Your task to perform on an android device: toggle notifications settings in the gmail app Image 0: 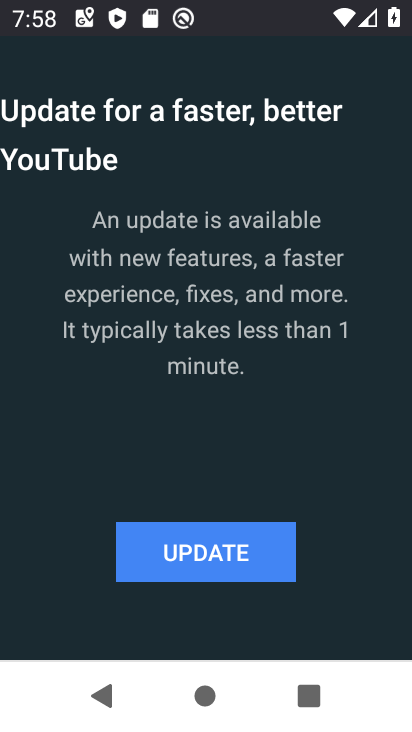
Step 0: press home button
Your task to perform on an android device: toggle notifications settings in the gmail app Image 1: 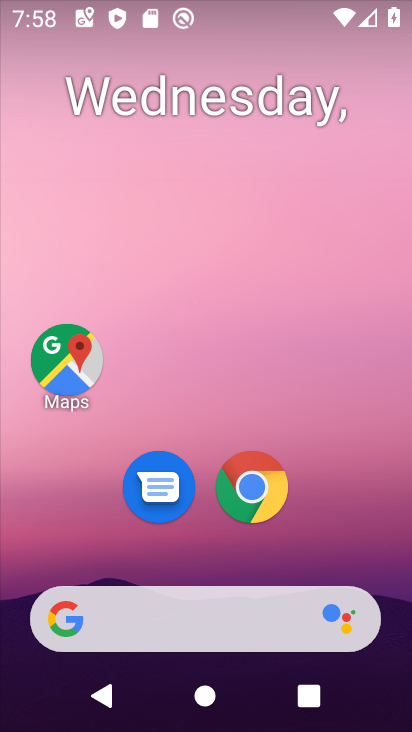
Step 1: drag from (375, 543) to (365, 262)
Your task to perform on an android device: toggle notifications settings in the gmail app Image 2: 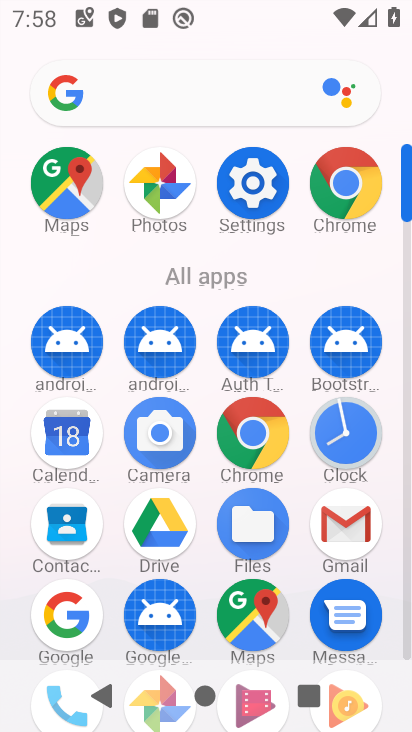
Step 2: click (344, 540)
Your task to perform on an android device: toggle notifications settings in the gmail app Image 3: 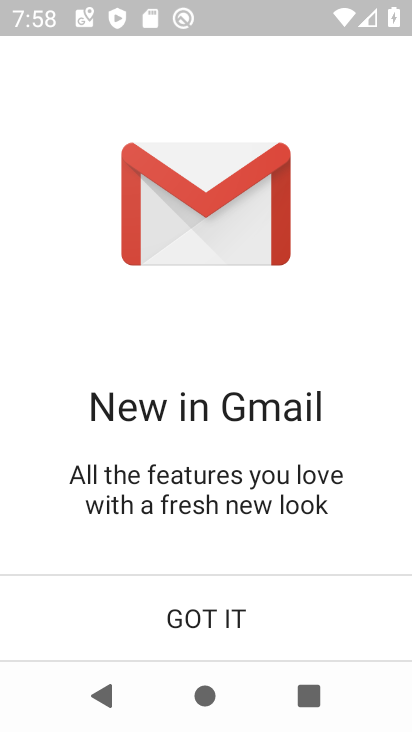
Step 3: click (273, 613)
Your task to perform on an android device: toggle notifications settings in the gmail app Image 4: 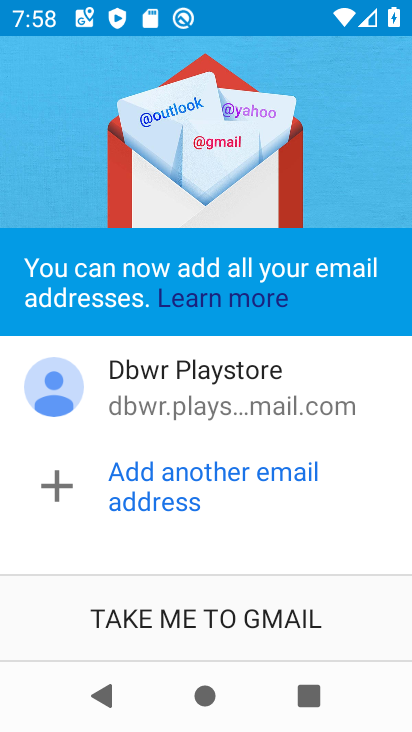
Step 4: click (273, 613)
Your task to perform on an android device: toggle notifications settings in the gmail app Image 5: 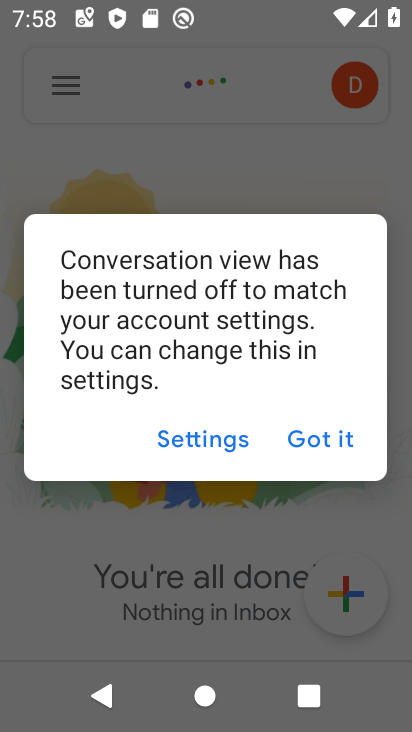
Step 5: click (332, 439)
Your task to perform on an android device: toggle notifications settings in the gmail app Image 6: 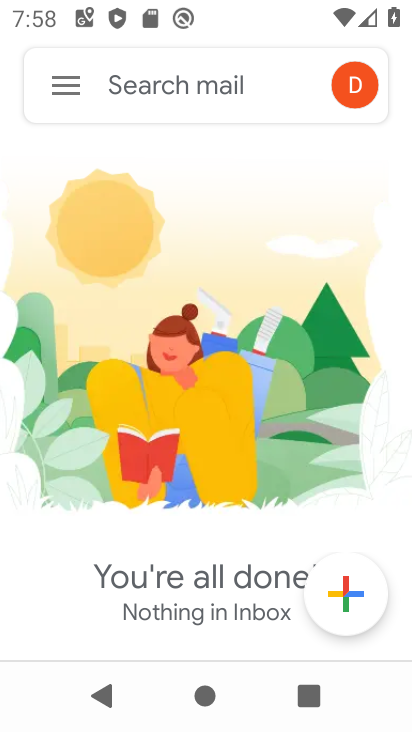
Step 6: click (61, 89)
Your task to perform on an android device: toggle notifications settings in the gmail app Image 7: 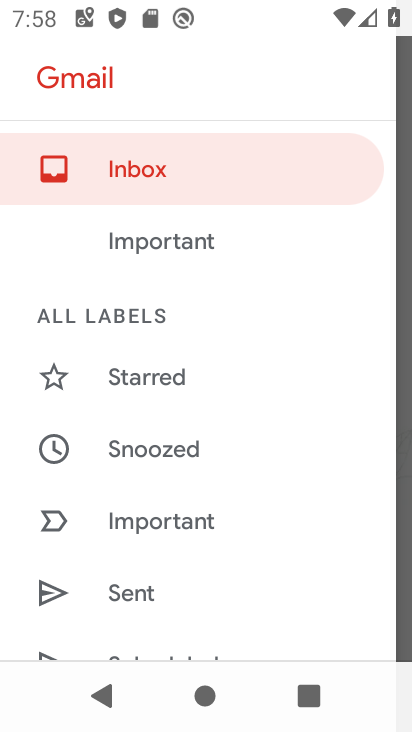
Step 7: drag from (252, 551) to (273, 462)
Your task to perform on an android device: toggle notifications settings in the gmail app Image 8: 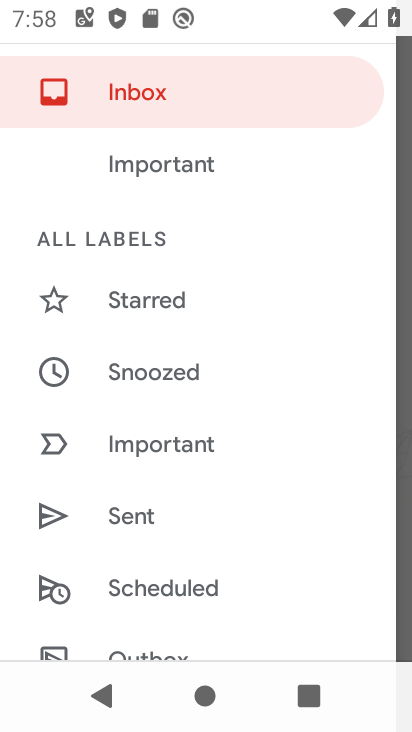
Step 8: drag from (275, 596) to (283, 490)
Your task to perform on an android device: toggle notifications settings in the gmail app Image 9: 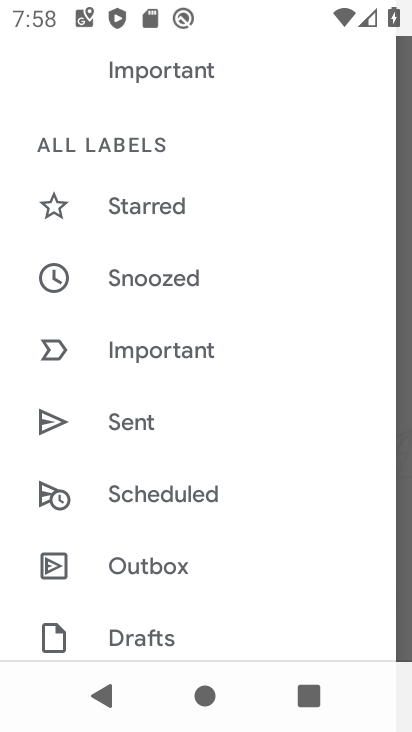
Step 9: drag from (278, 601) to (281, 480)
Your task to perform on an android device: toggle notifications settings in the gmail app Image 10: 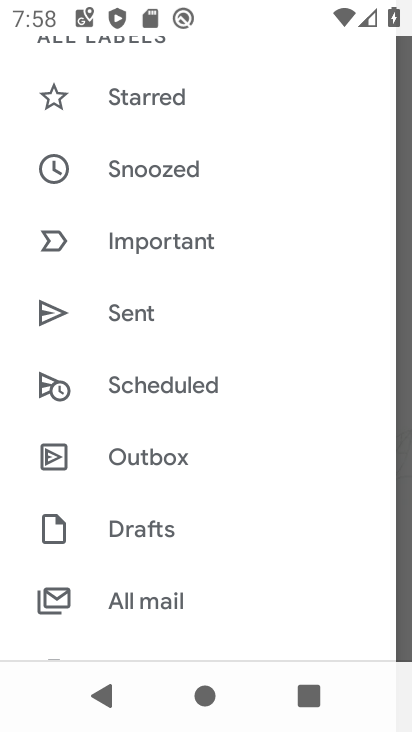
Step 10: drag from (261, 599) to (261, 516)
Your task to perform on an android device: toggle notifications settings in the gmail app Image 11: 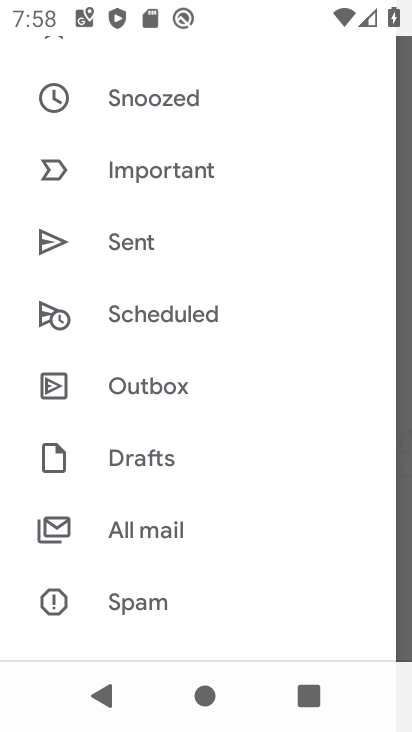
Step 11: drag from (266, 616) to (272, 518)
Your task to perform on an android device: toggle notifications settings in the gmail app Image 12: 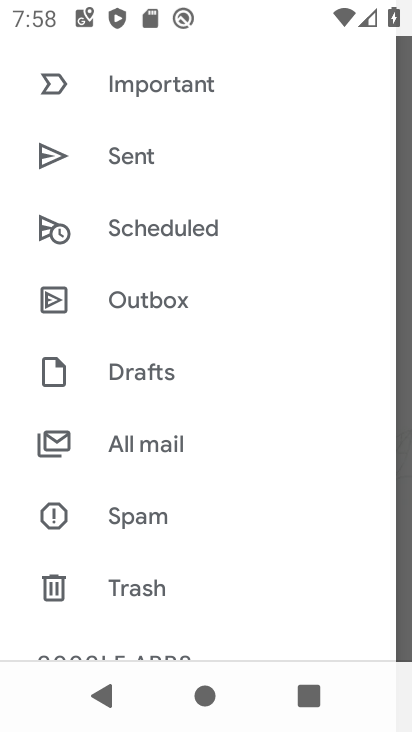
Step 12: drag from (254, 580) to (259, 467)
Your task to perform on an android device: toggle notifications settings in the gmail app Image 13: 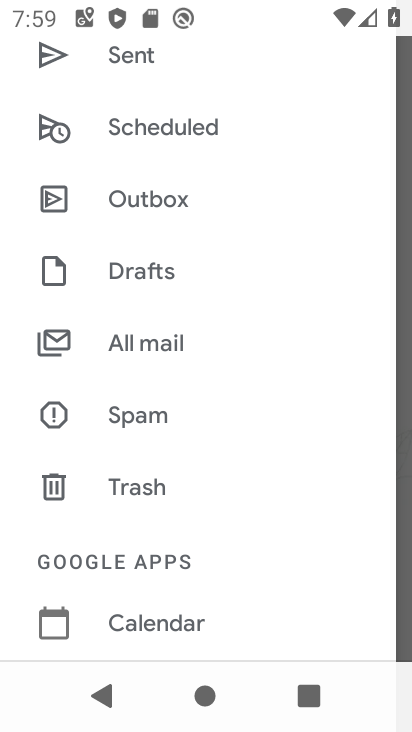
Step 13: drag from (255, 604) to (263, 479)
Your task to perform on an android device: toggle notifications settings in the gmail app Image 14: 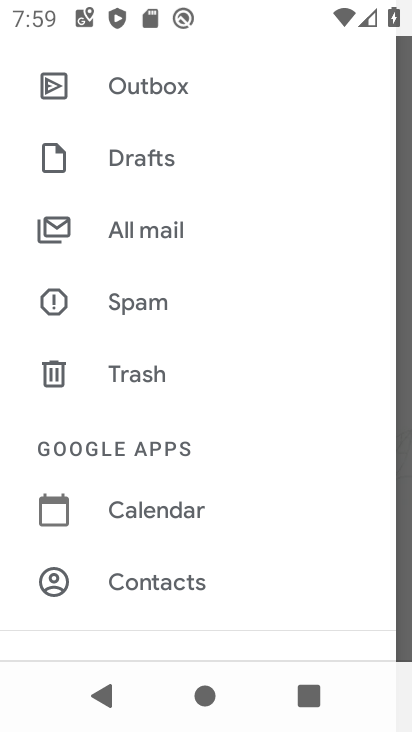
Step 14: drag from (262, 616) to (278, 475)
Your task to perform on an android device: toggle notifications settings in the gmail app Image 15: 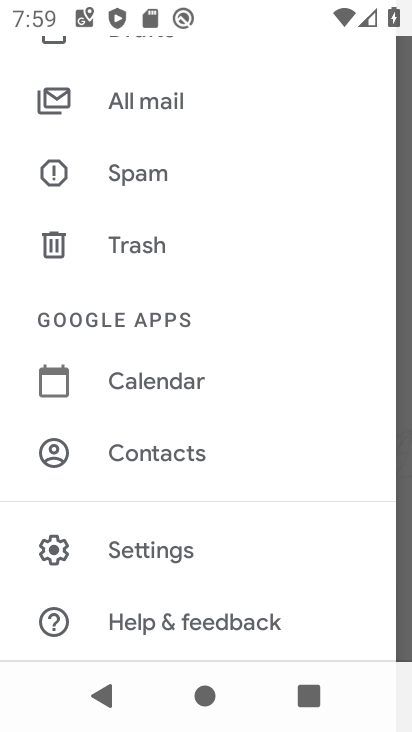
Step 15: click (194, 567)
Your task to perform on an android device: toggle notifications settings in the gmail app Image 16: 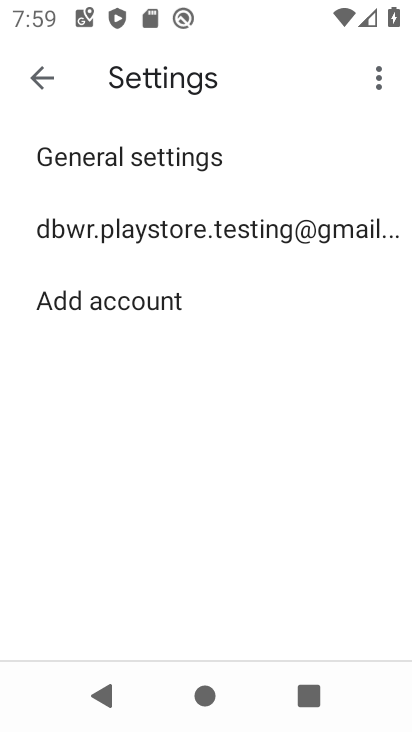
Step 16: click (270, 244)
Your task to perform on an android device: toggle notifications settings in the gmail app Image 17: 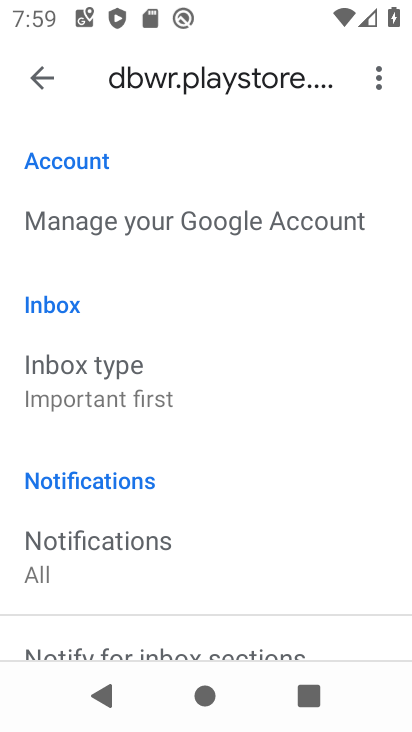
Step 17: drag from (289, 546) to (286, 437)
Your task to perform on an android device: toggle notifications settings in the gmail app Image 18: 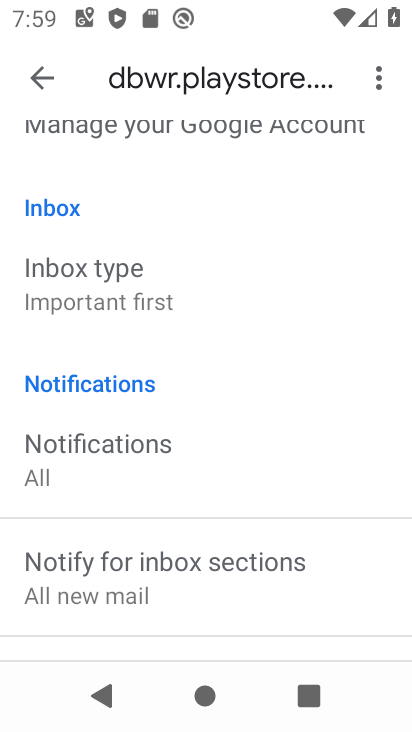
Step 18: drag from (268, 593) to (270, 450)
Your task to perform on an android device: toggle notifications settings in the gmail app Image 19: 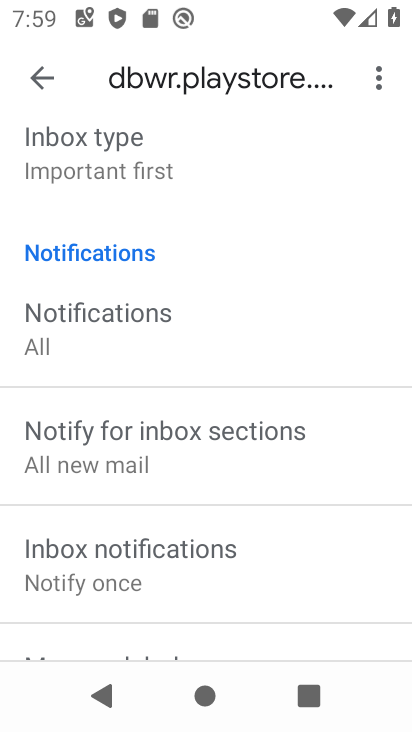
Step 19: drag from (257, 596) to (259, 480)
Your task to perform on an android device: toggle notifications settings in the gmail app Image 20: 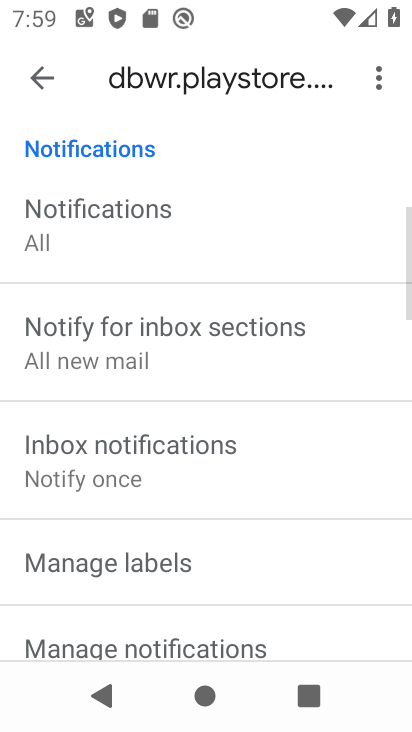
Step 20: drag from (245, 616) to (265, 484)
Your task to perform on an android device: toggle notifications settings in the gmail app Image 21: 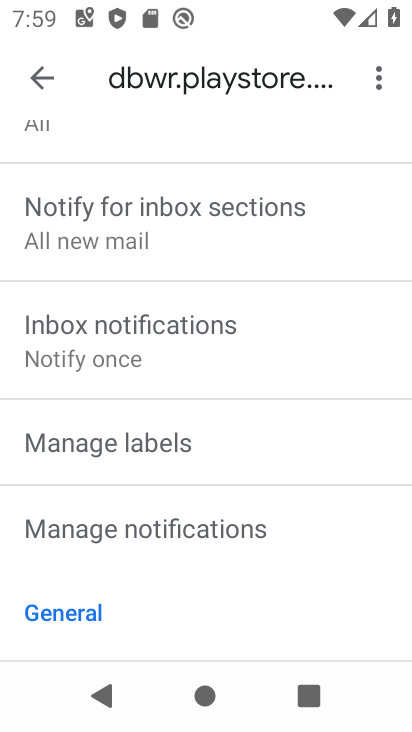
Step 21: drag from (249, 607) to (249, 464)
Your task to perform on an android device: toggle notifications settings in the gmail app Image 22: 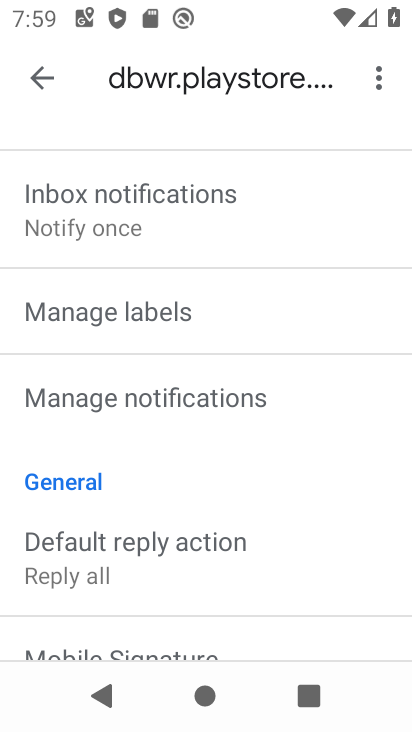
Step 22: click (191, 401)
Your task to perform on an android device: toggle notifications settings in the gmail app Image 23: 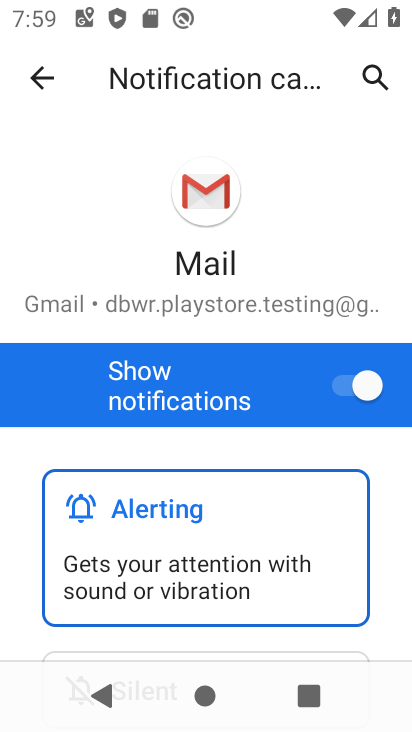
Step 23: click (356, 387)
Your task to perform on an android device: toggle notifications settings in the gmail app Image 24: 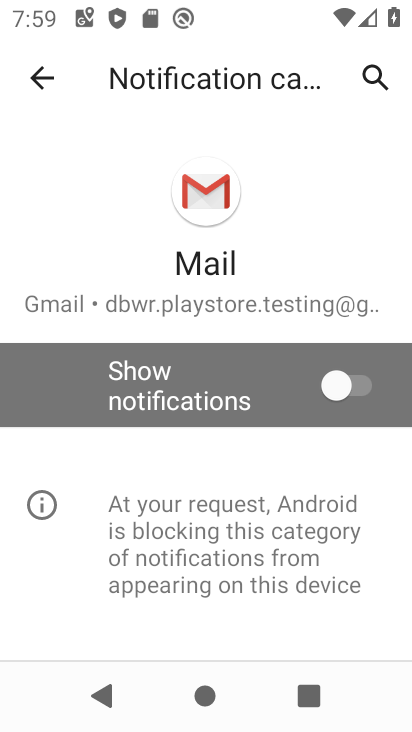
Step 24: task complete